Your task to perform on an android device: turn pop-ups on in chrome Image 0: 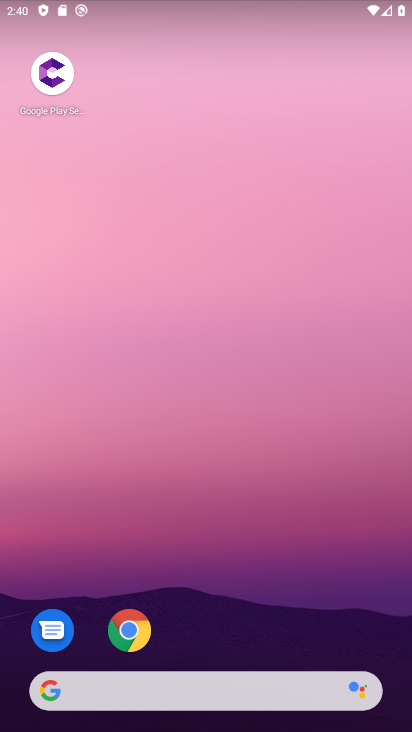
Step 0: drag from (231, 632) to (175, 79)
Your task to perform on an android device: turn pop-ups on in chrome Image 1: 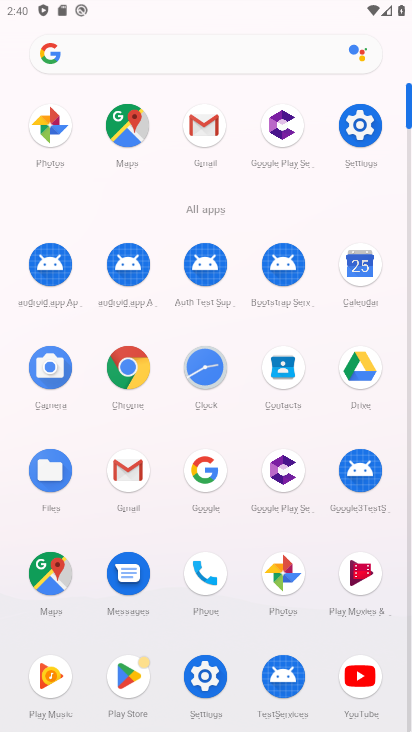
Step 1: click (129, 368)
Your task to perform on an android device: turn pop-ups on in chrome Image 2: 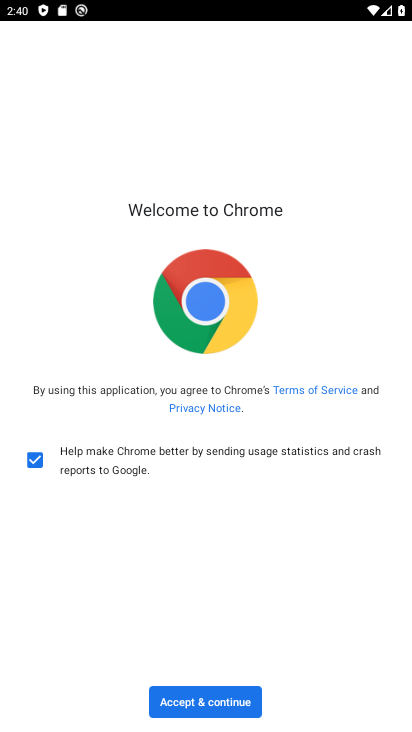
Step 2: click (207, 697)
Your task to perform on an android device: turn pop-ups on in chrome Image 3: 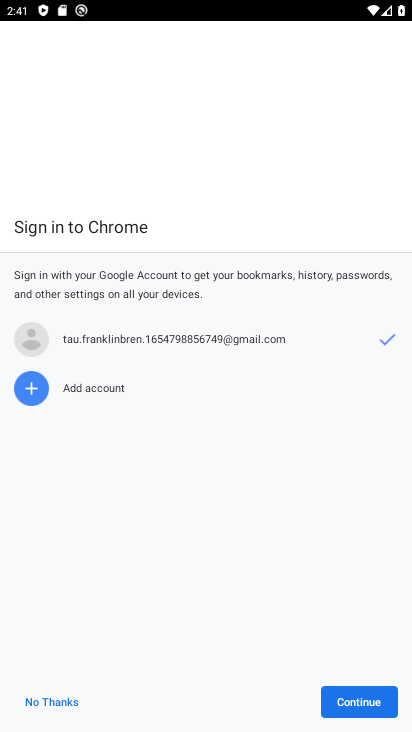
Step 3: click (385, 705)
Your task to perform on an android device: turn pop-ups on in chrome Image 4: 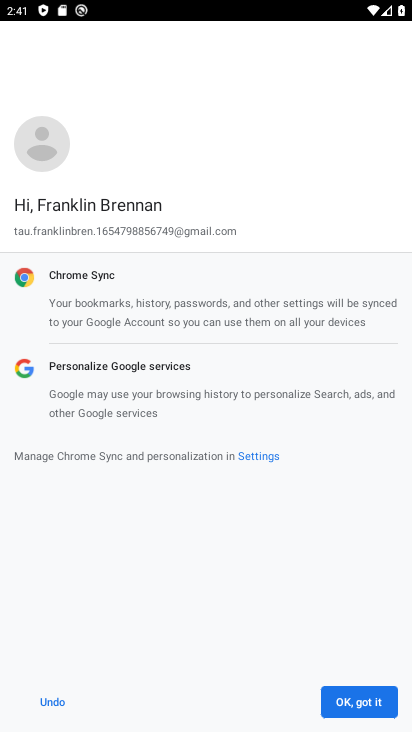
Step 4: click (375, 691)
Your task to perform on an android device: turn pop-ups on in chrome Image 5: 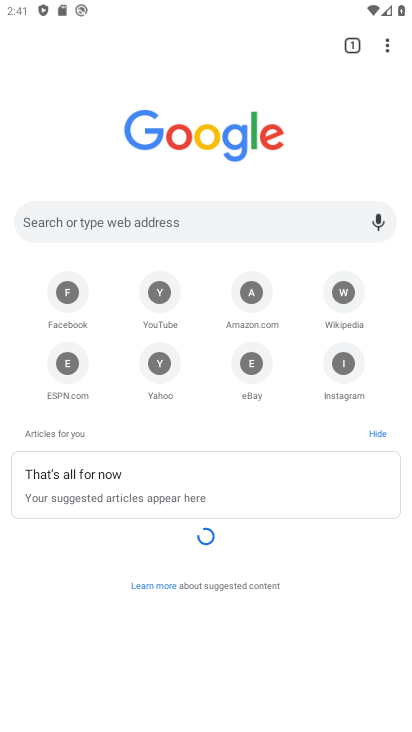
Step 5: drag from (390, 39) to (226, 378)
Your task to perform on an android device: turn pop-ups on in chrome Image 6: 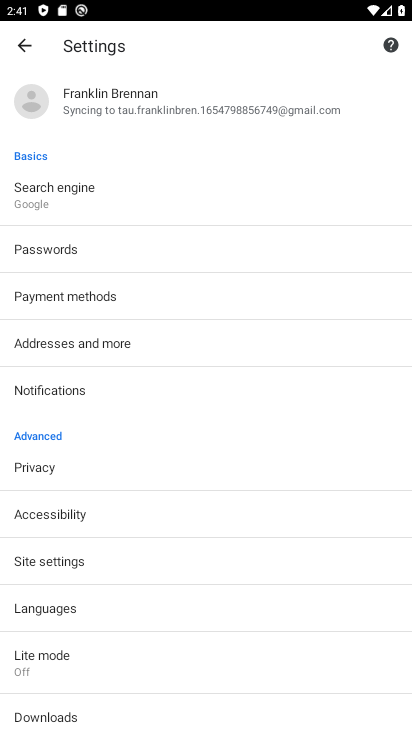
Step 6: click (56, 566)
Your task to perform on an android device: turn pop-ups on in chrome Image 7: 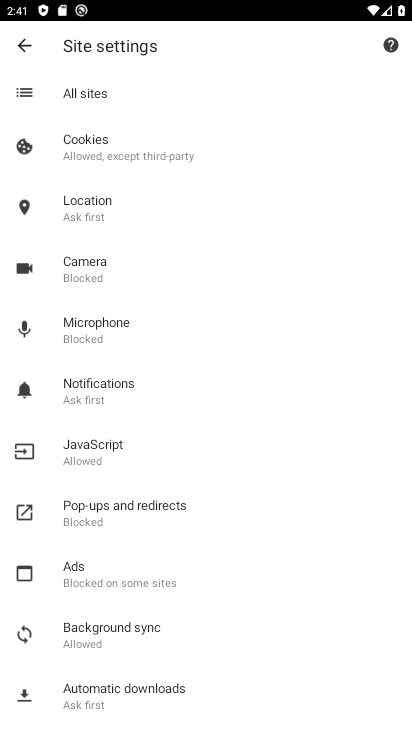
Step 7: click (105, 509)
Your task to perform on an android device: turn pop-ups on in chrome Image 8: 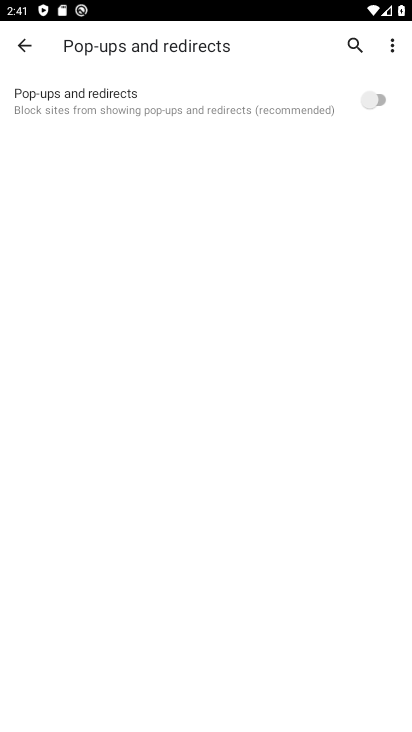
Step 8: click (383, 108)
Your task to perform on an android device: turn pop-ups on in chrome Image 9: 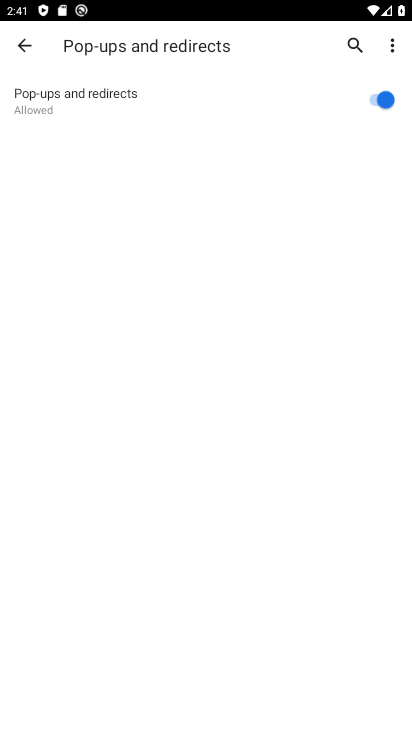
Step 9: task complete